Your task to perform on an android device: turn off javascript in the chrome app Image 0: 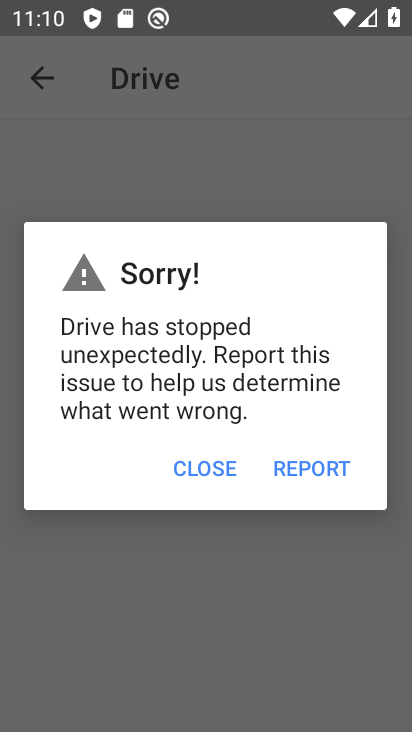
Step 0: press home button
Your task to perform on an android device: turn off javascript in the chrome app Image 1: 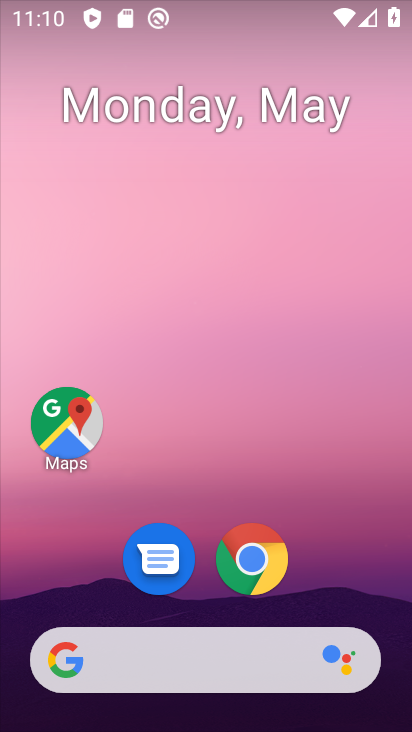
Step 1: click (259, 579)
Your task to perform on an android device: turn off javascript in the chrome app Image 2: 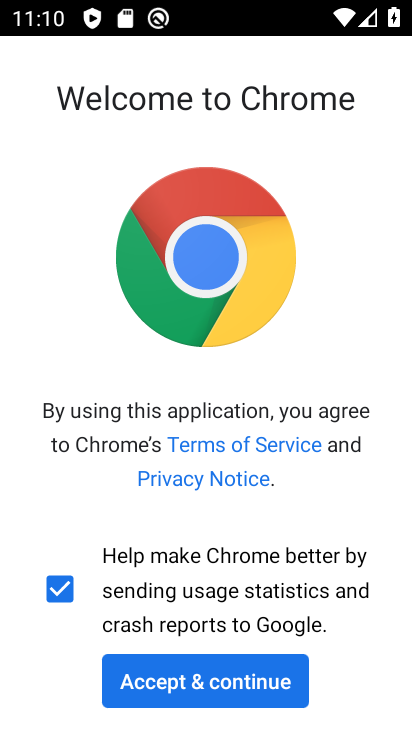
Step 2: click (227, 687)
Your task to perform on an android device: turn off javascript in the chrome app Image 3: 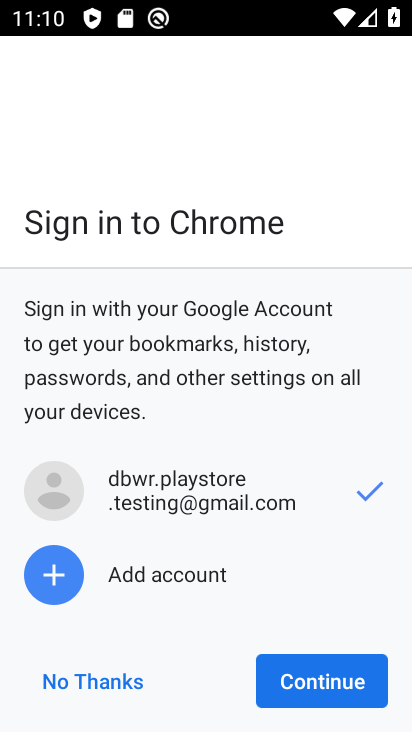
Step 3: click (311, 672)
Your task to perform on an android device: turn off javascript in the chrome app Image 4: 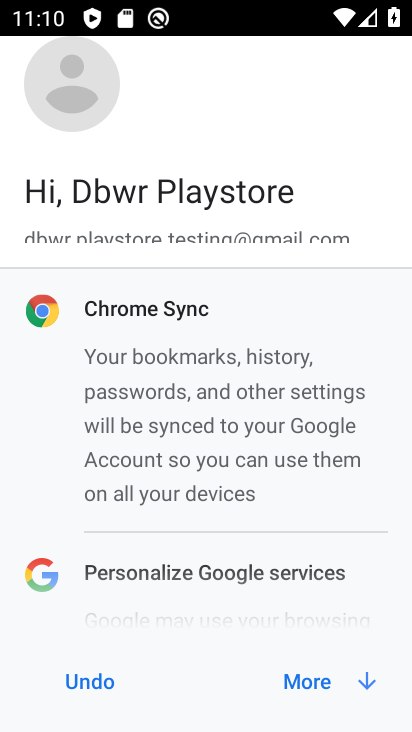
Step 4: click (305, 682)
Your task to perform on an android device: turn off javascript in the chrome app Image 5: 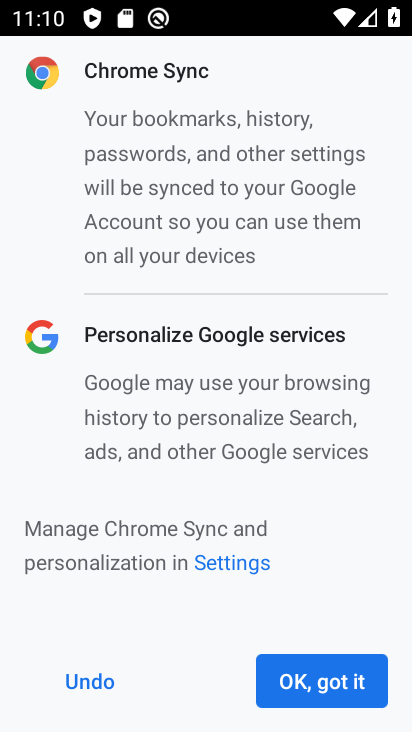
Step 5: click (306, 685)
Your task to perform on an android device: turn off javascript in the chrome app Image 6: 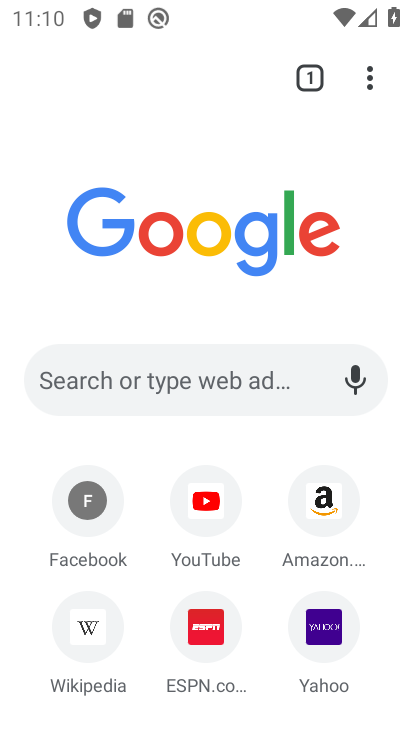
Step 6: drag from (364, 73) to (212, 635)
Your task to perform on an android device: turn off javascript in the chrome app Image 7: 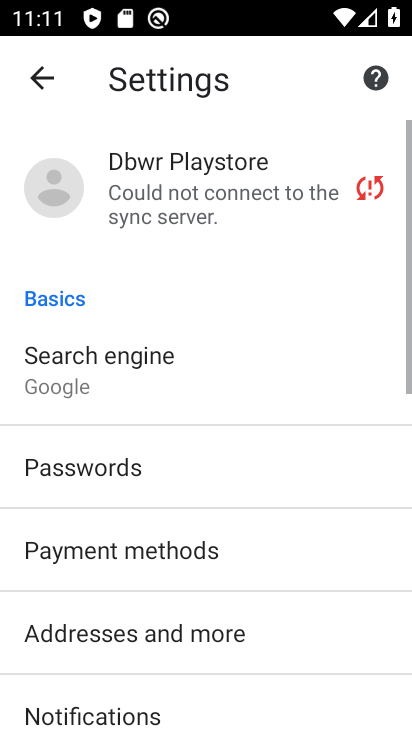
Step 7: drag from (168, 621) to (302, 214)
Your task to perform on an android device: turn off javascript in the chrome app Image 8: 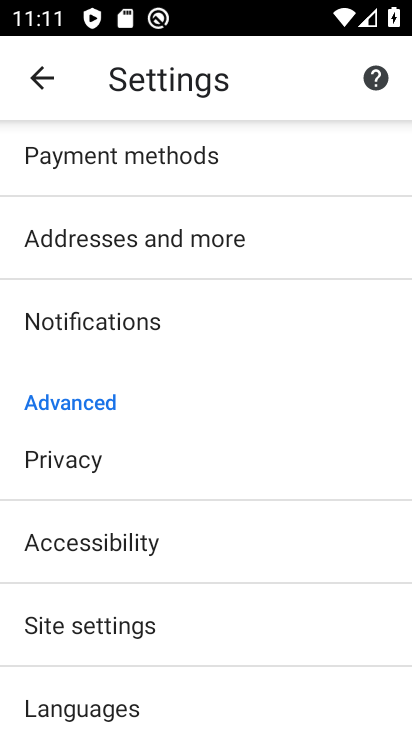
Step 8: click (179, 631)
Your task to perform on an android device: turn off javascript in the chrome app Image 9: 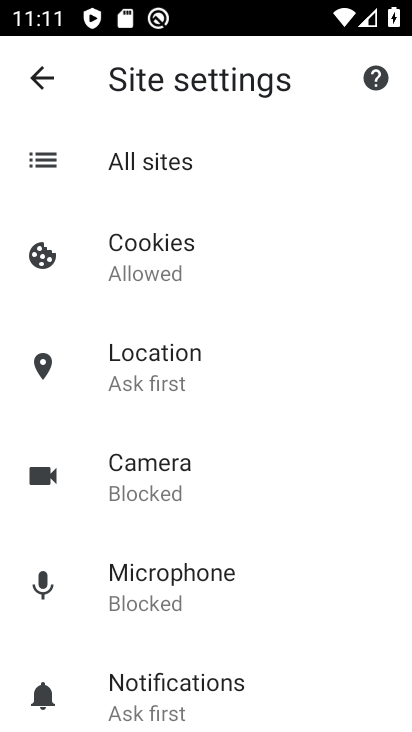
Step 9: drag from (146, 624) to (246, 254)
Your task to perform on an android device: turn off javascript in the chrome app Image 10: 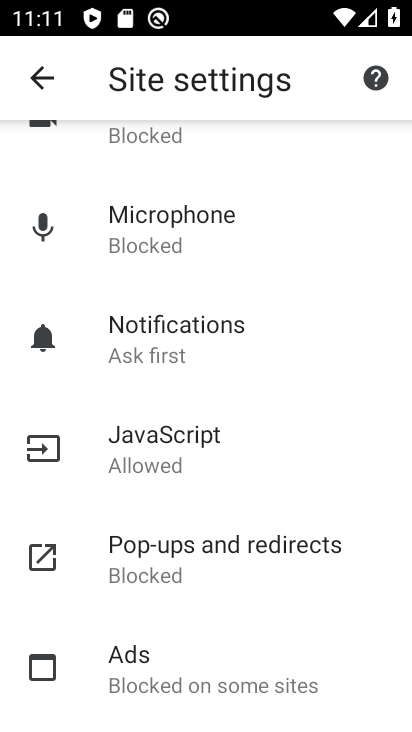
Step 10: click (205, 457)
Your task to perform on an android device: turn off javascript in the chrome app Image 11: 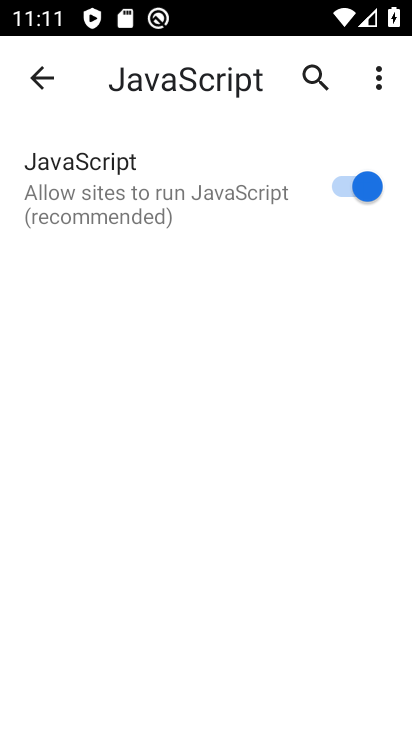
Step 11: click (341, 189)
Your task to perform on an android device: turn off javascript in the chrome app Image 12: 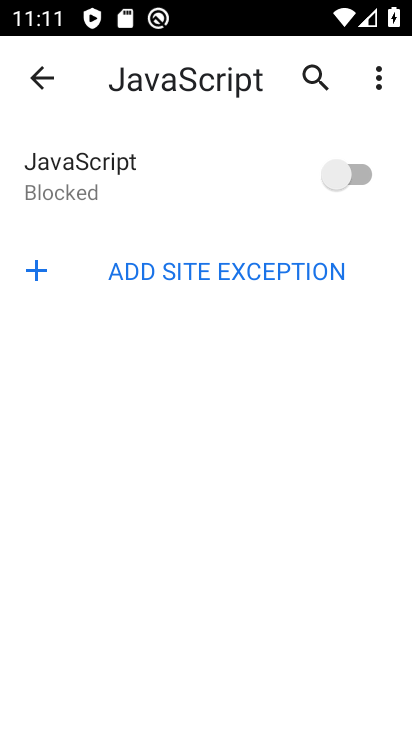
Step 12: task complete